Your task to perform on an android device: Do I have any events tomorrow? Image 0: 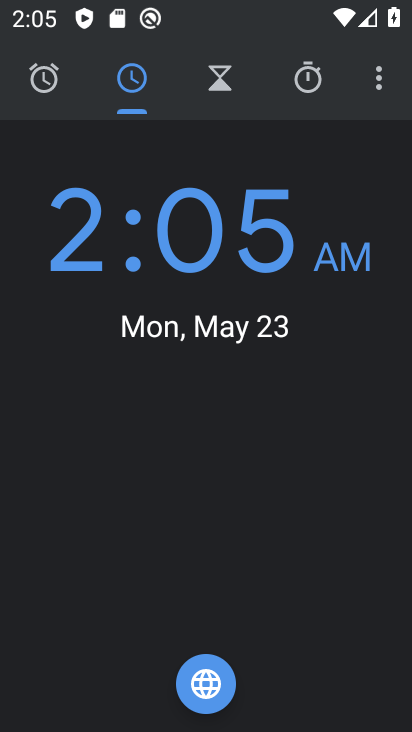
Step 0: press home button
Your task to perform on an android device: Do I have any events tomorrow? Image 1: 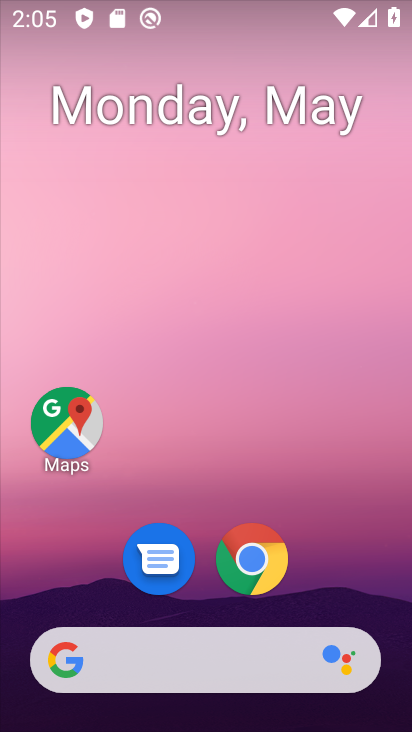
Step 1: drag from (274, 629) to (302, 56)
Your task to perform on an android device: Do I have any events tomorrow? Image 2: 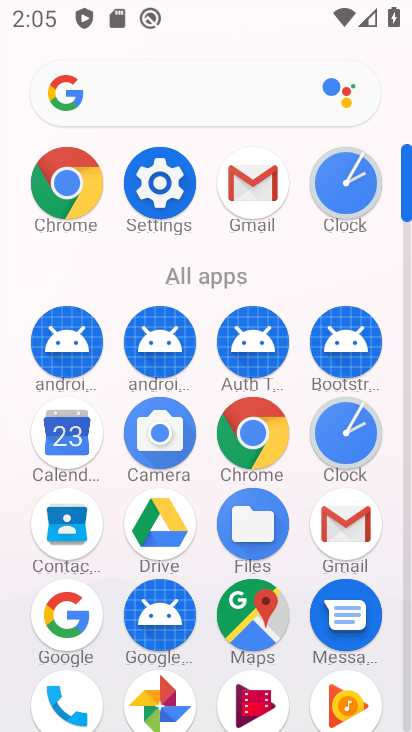
Step 2: click (58, 435)
Your task to perform on an android device: Do I have any events tomorrow? Image 3: 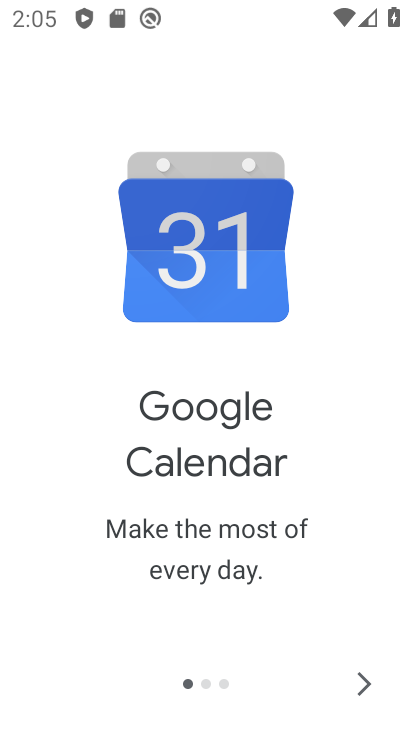
Step 3: click (336, 674)
Your task to perform on an android device: Do I have any events tomorrow? Image 4: 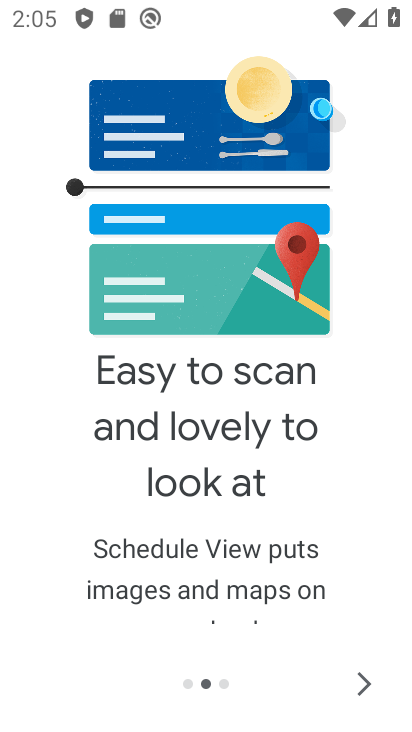
Step 4: click (366, 683)
Your task to perform on an android device: Do I have any events tomorrow? Image 5: 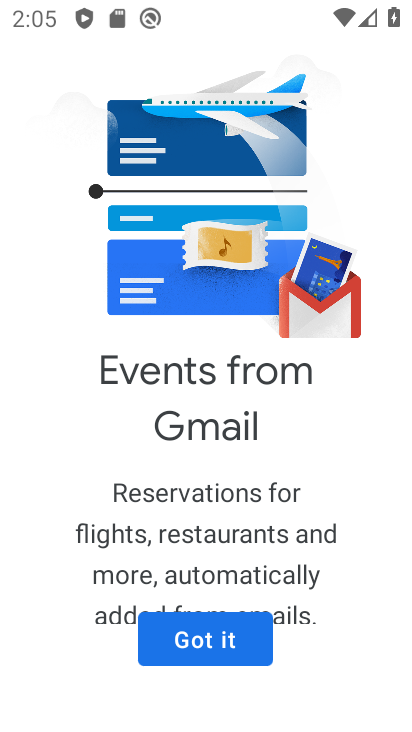
Step 5: click (180, 623)
Your task to perform on an android device: Do I have any events tomorrow? Image 6: 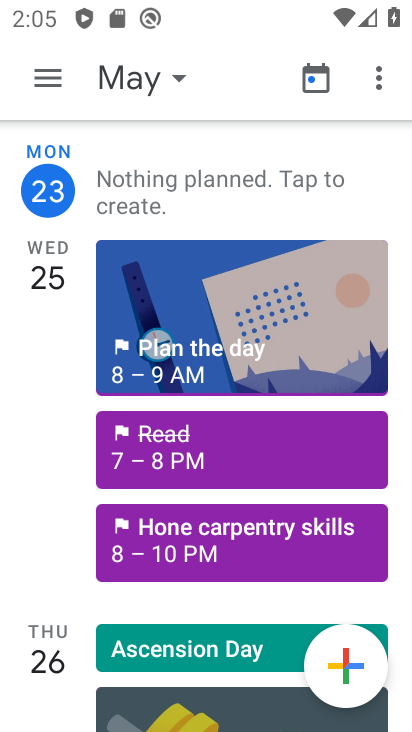
Step 6: task complete